Your task to perform on an android device: Set the phone to "Do not disturb". Image 0: 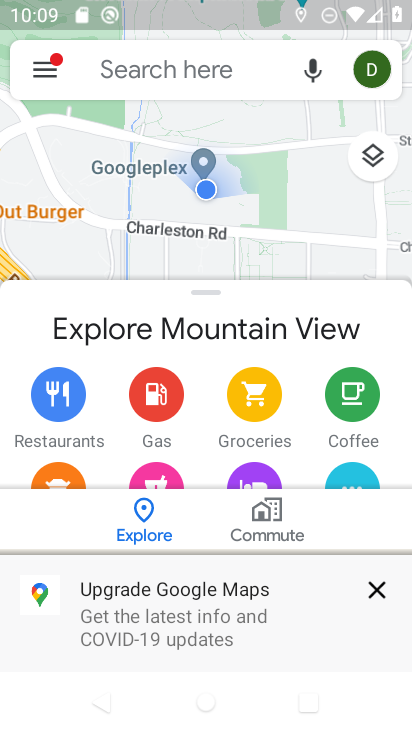
Step 0: press back button
Your task to perform on an android device: Set the phone to "Do not disturb". Image 1: 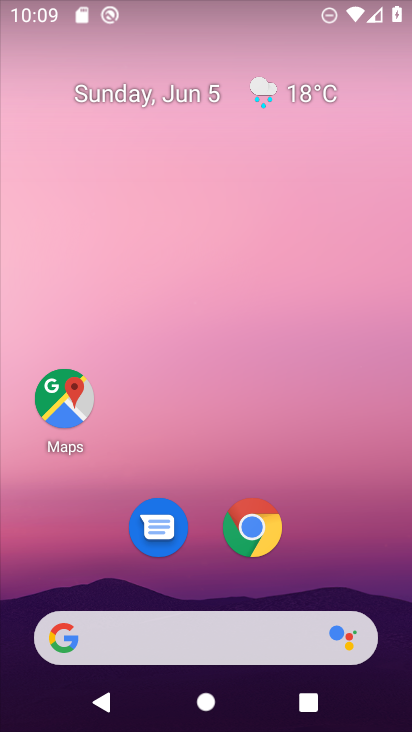
Step 1: task complete